Your task to perform on an android device: What's on my calendar tomorrow? Image 0: 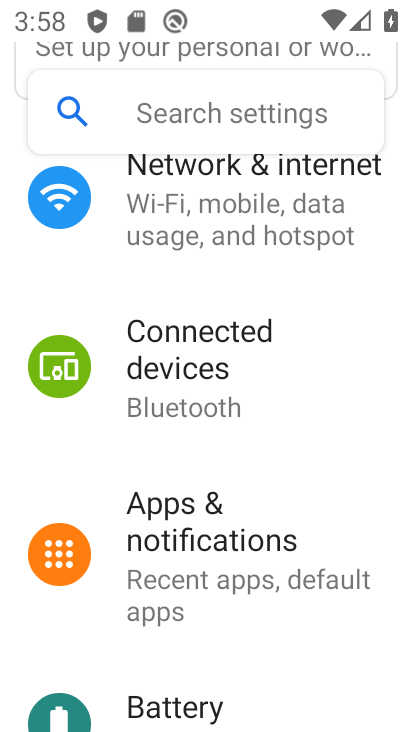
Step 0: press home button
Your task to perform on an android device: What's on my calendar tomorrow? Image 1: 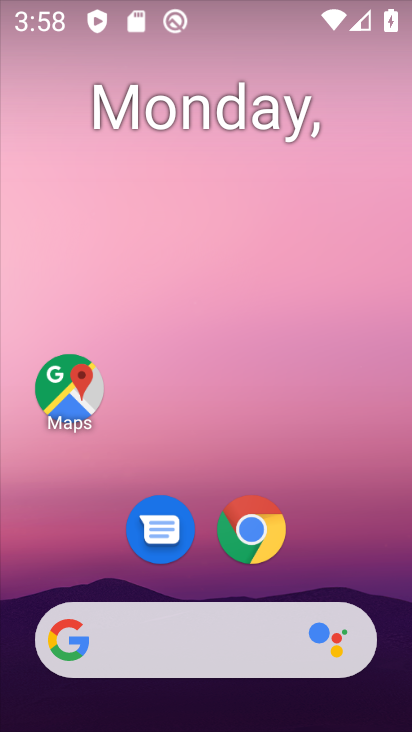
Step 1: drag from (202, 598) to (254, 70)
Your task to perform on an android device: What's on my calendar tomorrow? Image 2: 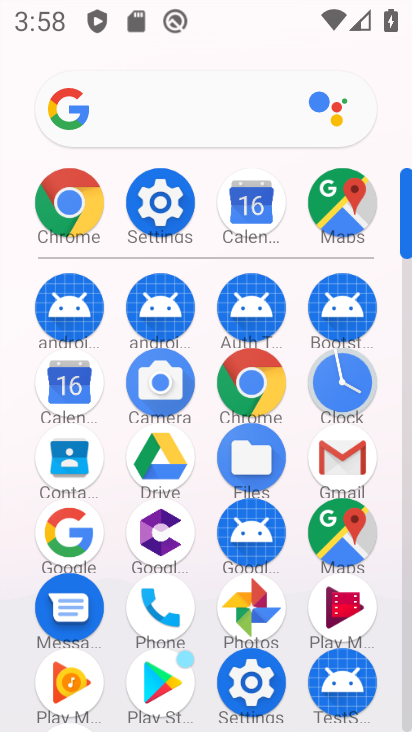
Step 2: click (67, 386)
Your task to perform on an android device: What's on my calendar tomorrow? Image 3: 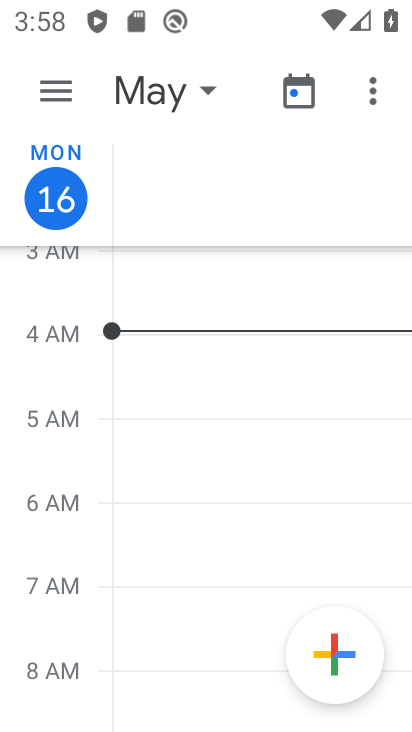
Step 3: click (54, 90)
Your task to perform on an android device: What's on my calendar tomorrow? Image 4: 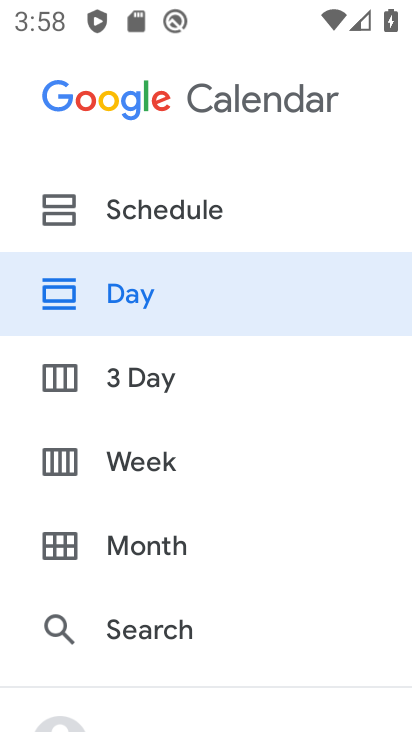
Step 4: click (171, 390)
Your task to perform on an android device: What's on my calendar tomorrow? Image 5: 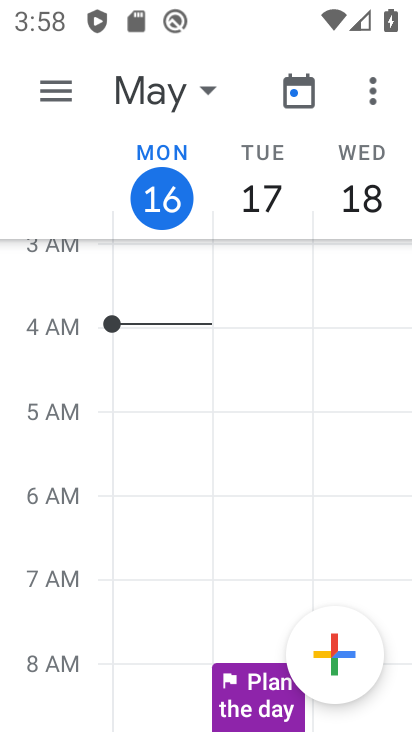
Step 5: task complete